Your task to perform on an android device: Turn on the flashlight Image 0: 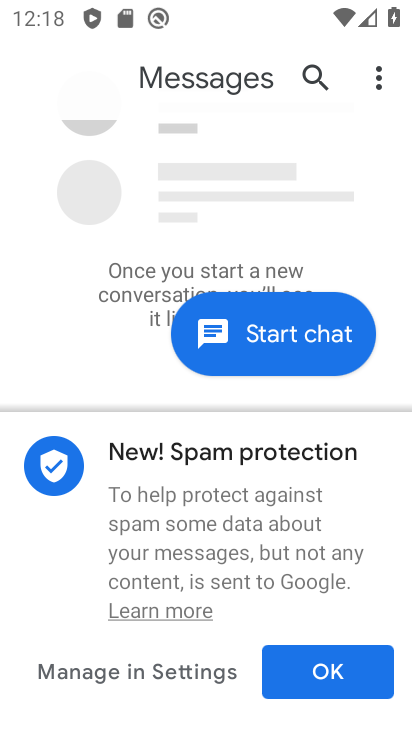
Step 0: press home button
Your task to perform on an android device: Turn on the flashlight Image 1: 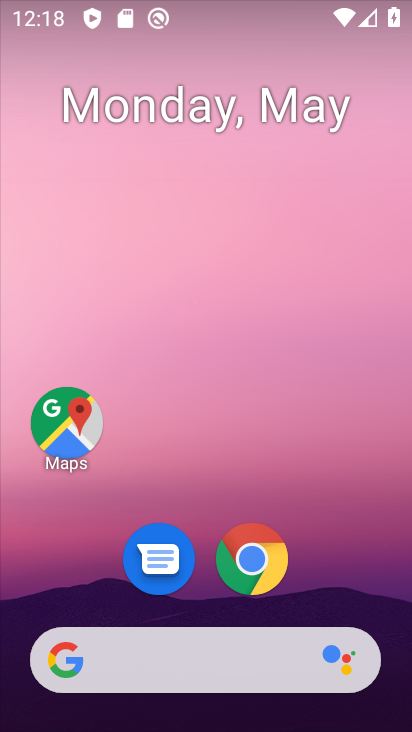
Step 1: task complete